Your task to perform on an android device: set an alarm Image 0: 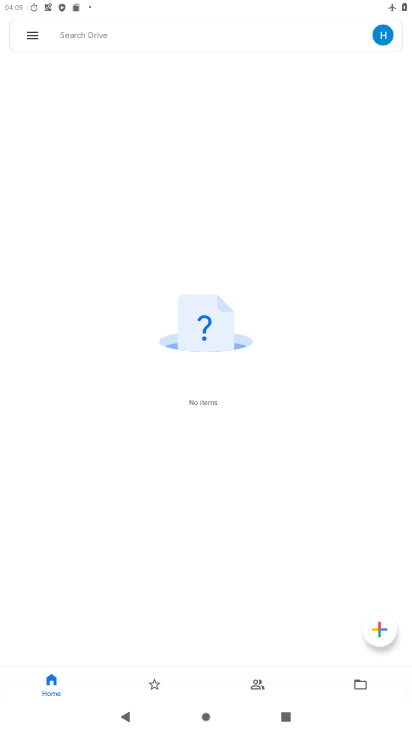
Step 0: press home button
Your task to perform on an android device: set an alarm Image 1: 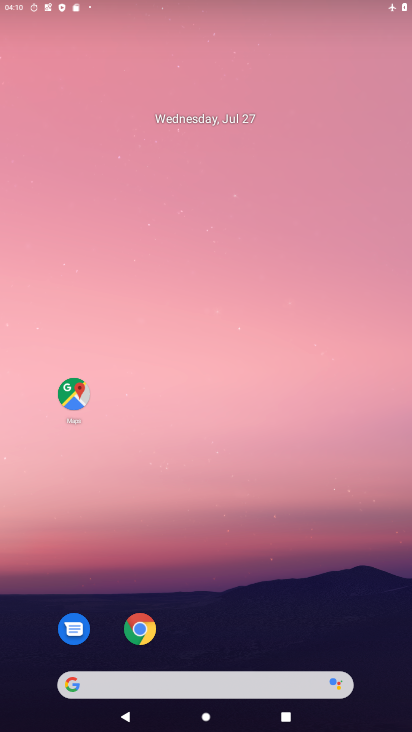
Step 1: drag from (292, 630) to (279, 101)
Your task to perform on an android device: set an alarm Image 2: 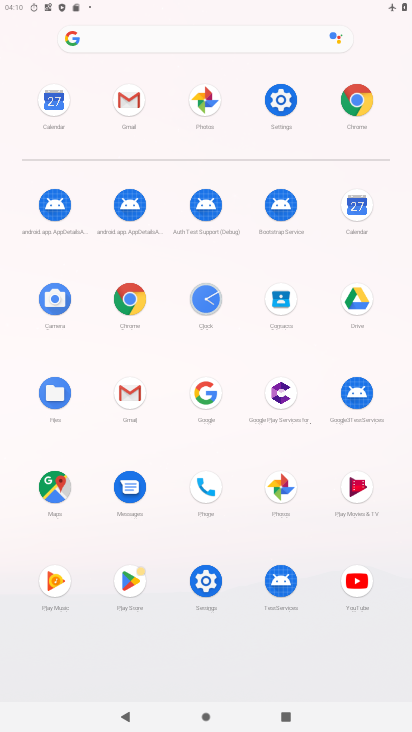
Step 2: click (203, 295)
Your task to perform on an android device: set an alarm Image 3: 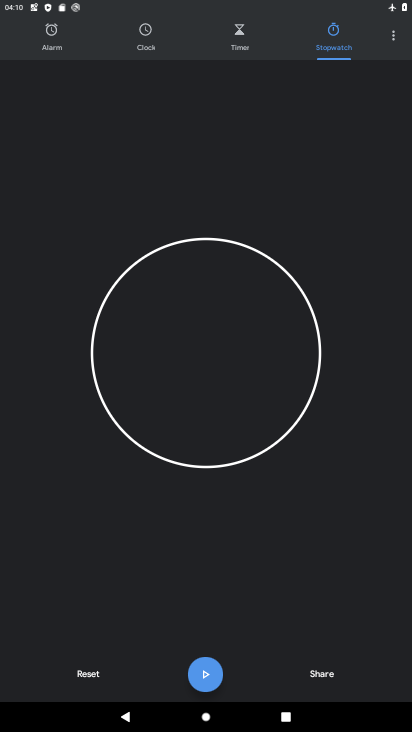
Step 3: click (42, 52)
Your task to perform on an android device: set an alarm Image 4: 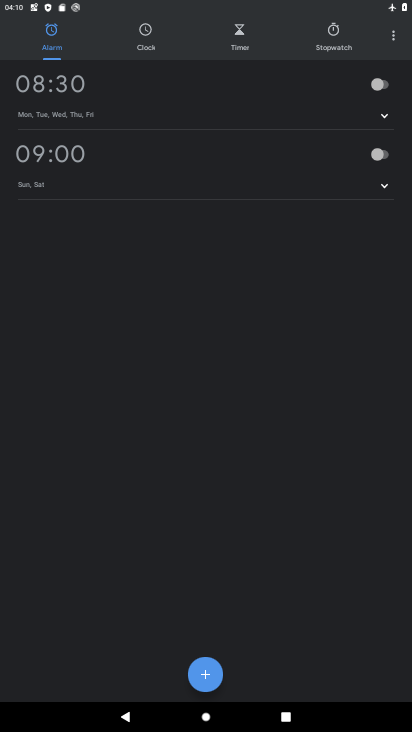
Step 4: click (211, 660)
Your task to perform on an android device: set an alarm Image 5: 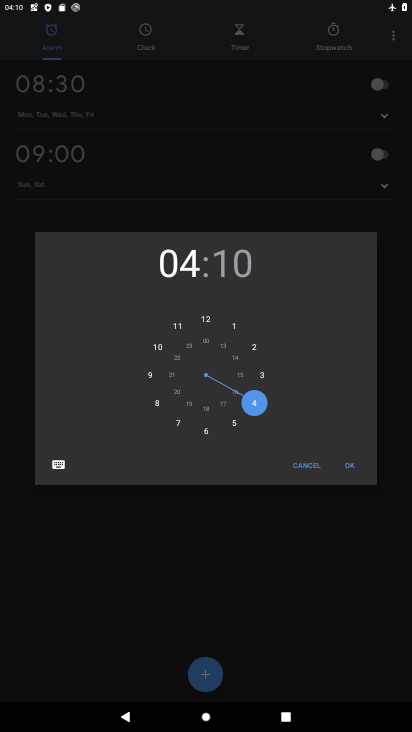
Step 5: click (352, 463)
Your task to perform on an android device: set an alarm Image 6: 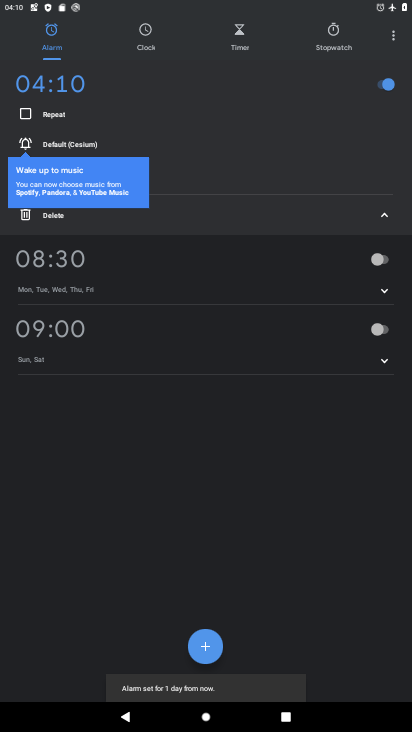
Step 6: task complete